Your task to perform on an android device: Go to Android settings Image 0: 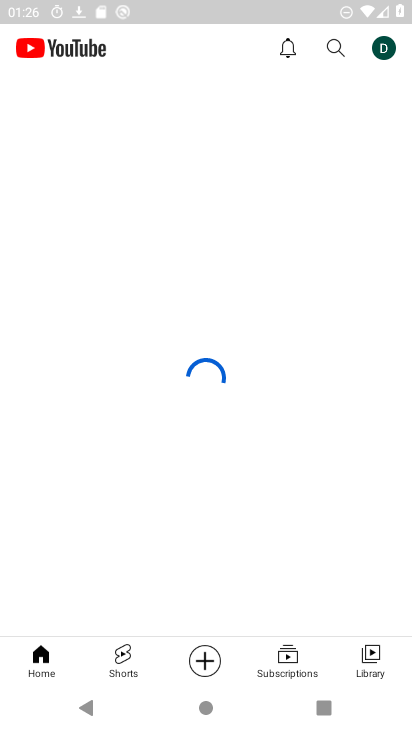
Step 0: press home button
Your task to perform on an android device: Go to Android settings Image 1: 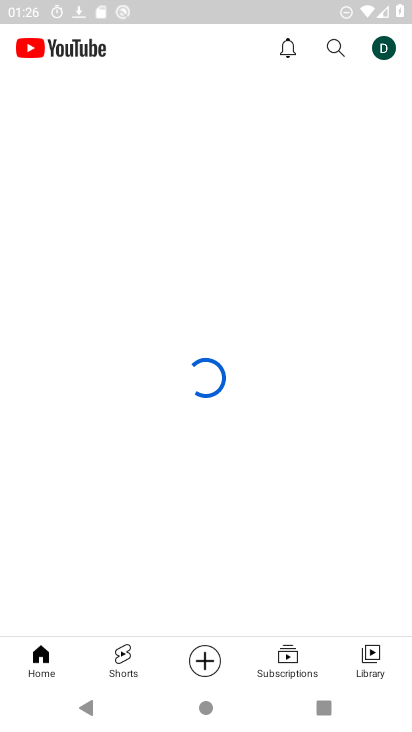
Step 1: click (374, 670)
Your task to perform on an android device: Go to Android settings Image 2: 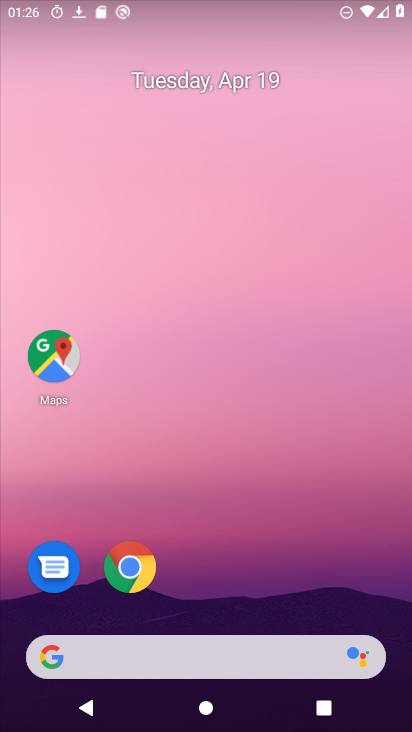
Step 2: drag from (271, 372) to (343, 0)
Your task to perform on an android device: Go to Android settings Image 3: 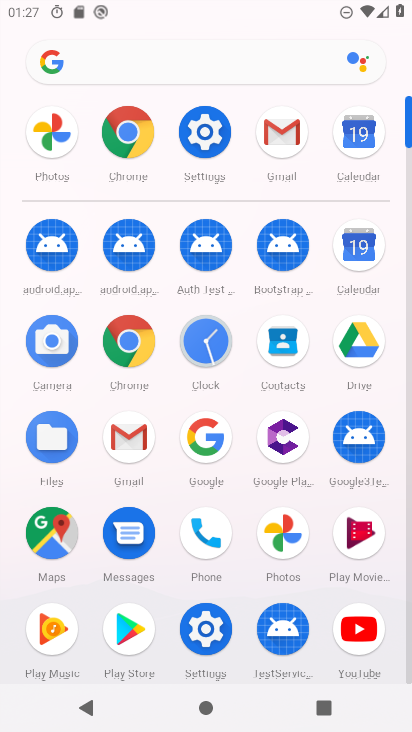
Step 3: click (206, 621)
Your task to perform on an android device: Go to Android settings Image 4: 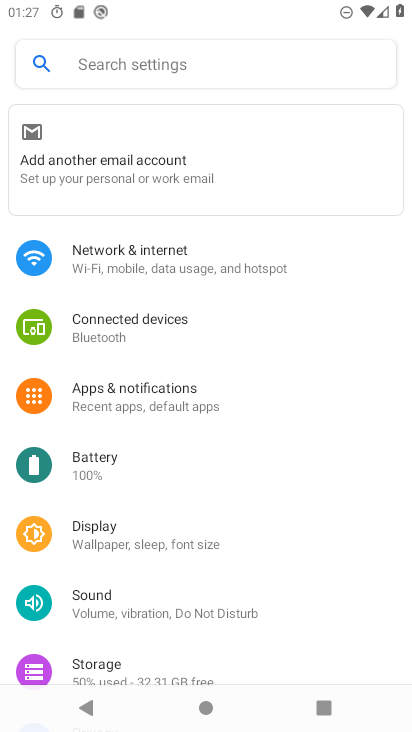
Step 4: task complete